Your task to perform on an android device: toggle data saver in the chrome app Image 0: 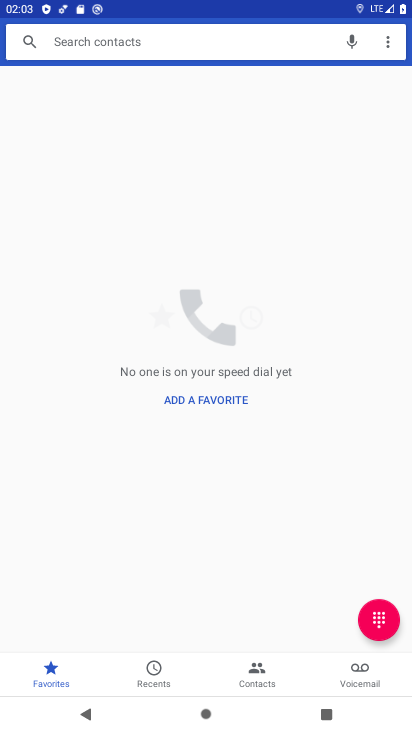
Step 0: press home button
Your task to perform on an android device: toggle data saver in the chrome app Image 1: 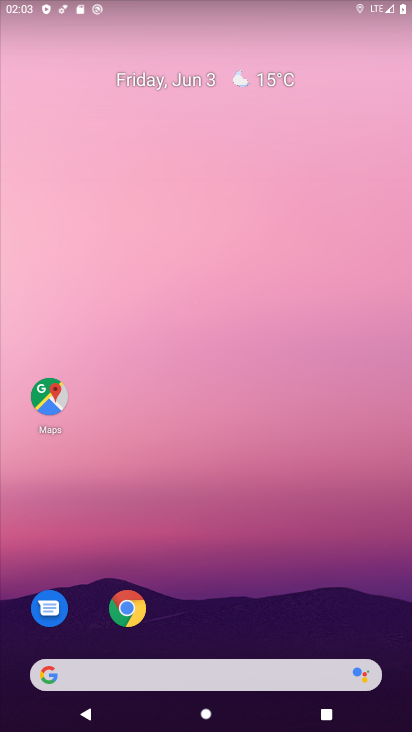
Step 1: click (129, 606)
Your task to perform on an android device: toggle data saver in the chrome app Image 2: 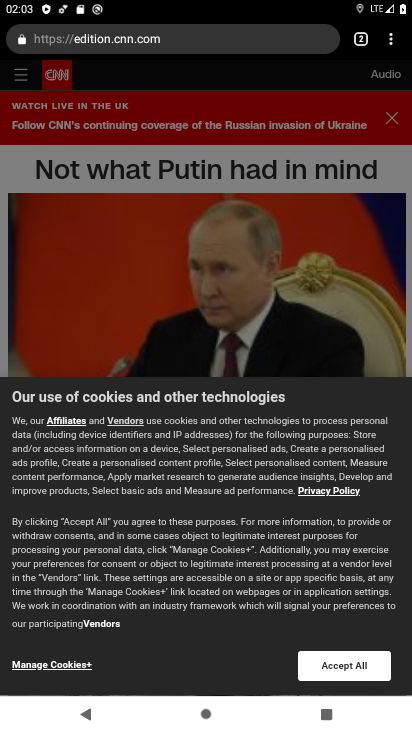
Step 2: drag from (390, 40) to (272, 472)
Your task to perform on an android device: toggle data saver in the chrome app Image 3: 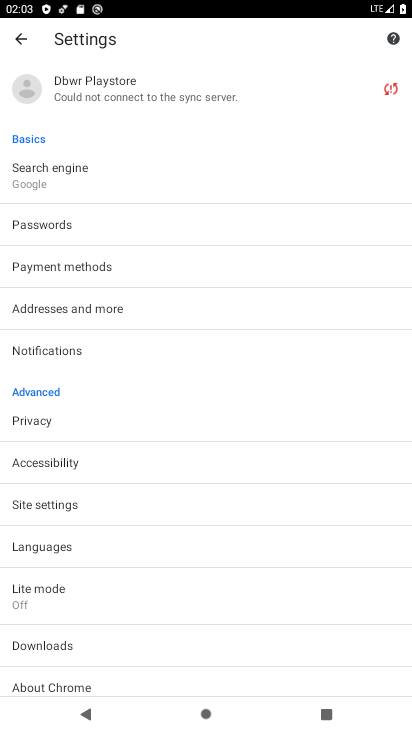
Step 3: click (65, 603)
Your task to perform on an android device: toggle data saver in the chrome app Image 4: 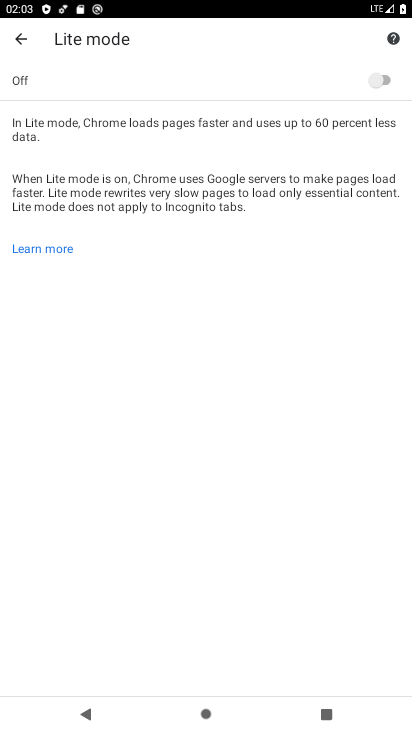
Step 4: task complete